Your task to perform on an android device: Go to internet settings Image 0: 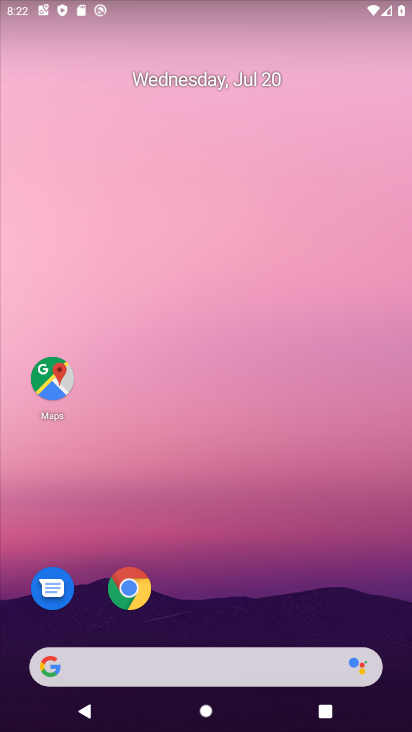
Step 0: drag from (138, 12) to (121, 726)
Your task to perform on an android device: Go to internet settings Image 1: 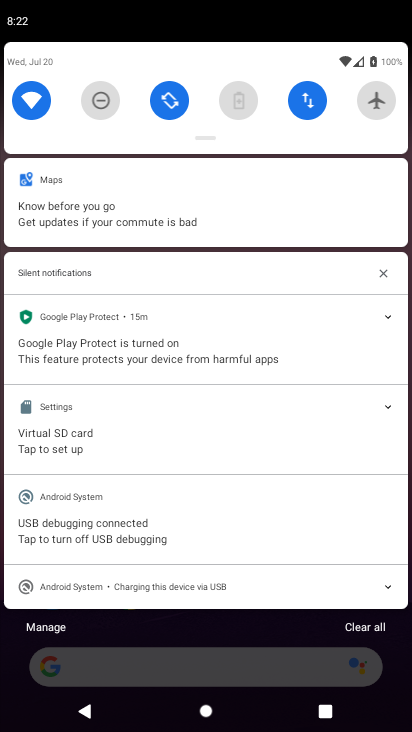
Step 1: click (304, 111)
Your task to perform on an android device: Go to internet settings Image 2: 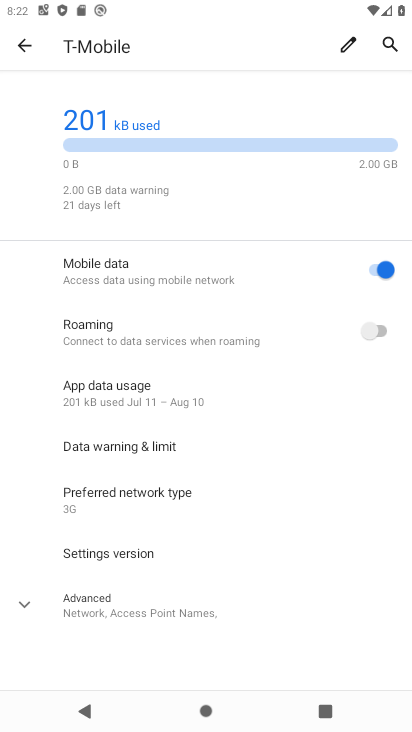
Step 2: task complete